Your task to perform on an android device: Go to sound settings Image 0: 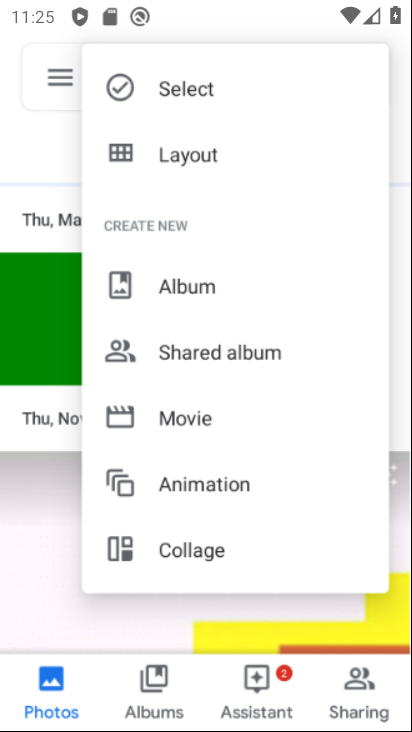
Step 0: press home button
Your task to perform on an android device: Go to sound settings Image 1: 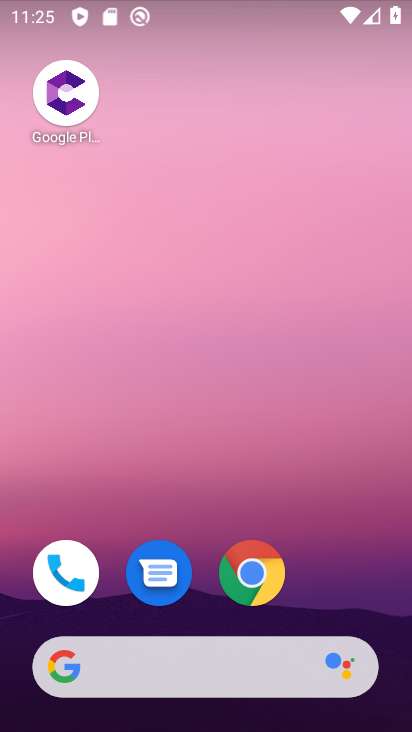
Step 1: drag from (360, 588) to (337, 101)
Your task to perform on an android device: Go to sound settings Image 2: 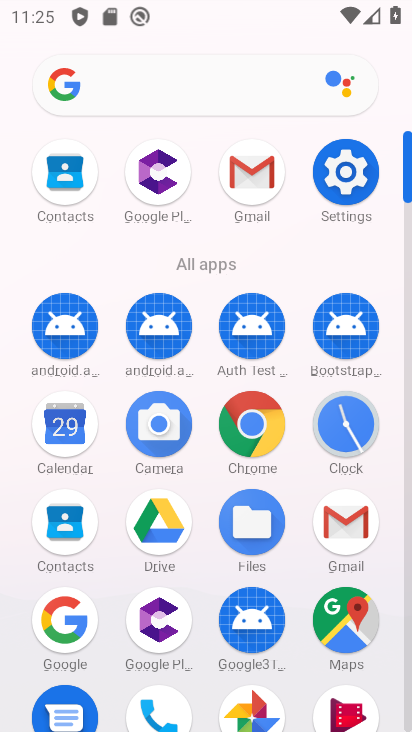
Step 2: click (360, 179)
Your task to perform on an android device: Go to sound settings Image 3: 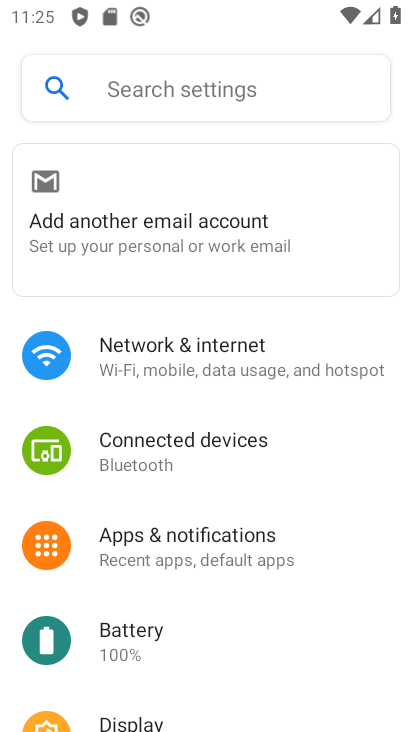
Step 3: drag from (302, 705) to (273, 63)
Your task to perform on an android device: Go to sound settings Image 4: 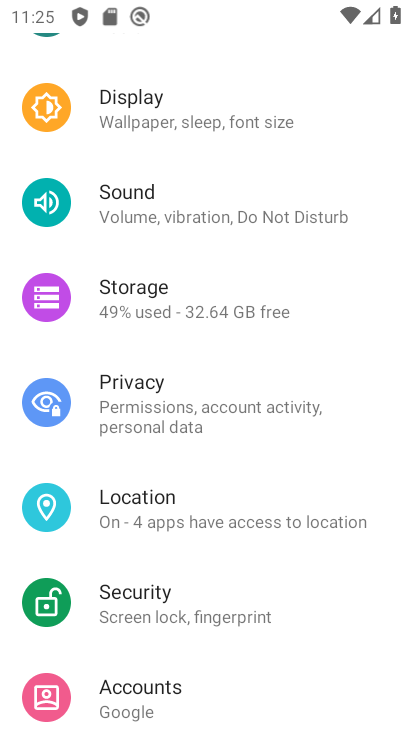
Step 4: click (228, 204)
Your task to perform on an android device: Go to sound settings Image 5: 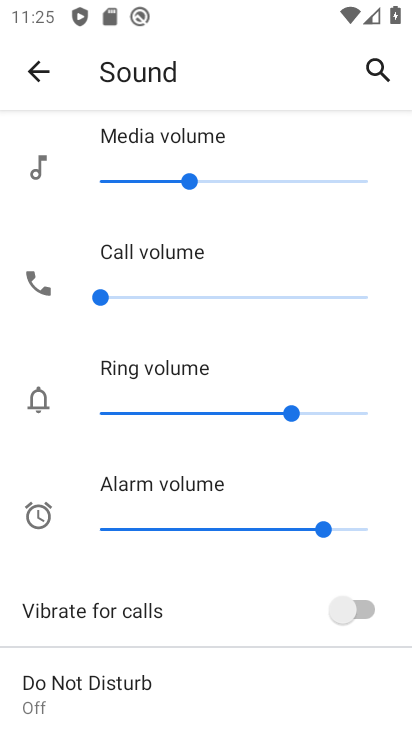
Step 5: task complete